Your task to perform on an android device: Open battery settings Image 0: 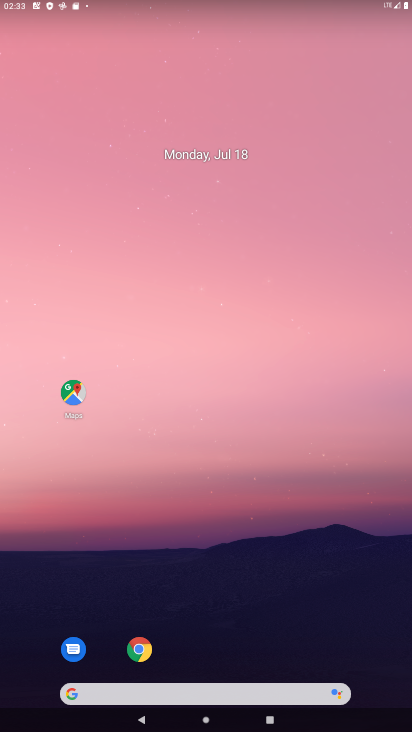
Step 0: drag from (93, 707) to (181, 86)
Your task to perform on an android device: Open battery settings Image 1: 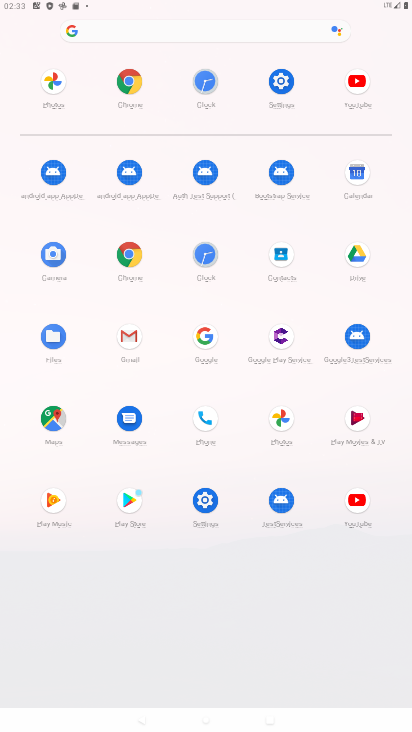
Step 1: click (280, 95)
Your task to perform on an android device: Open battery settings Image 2: 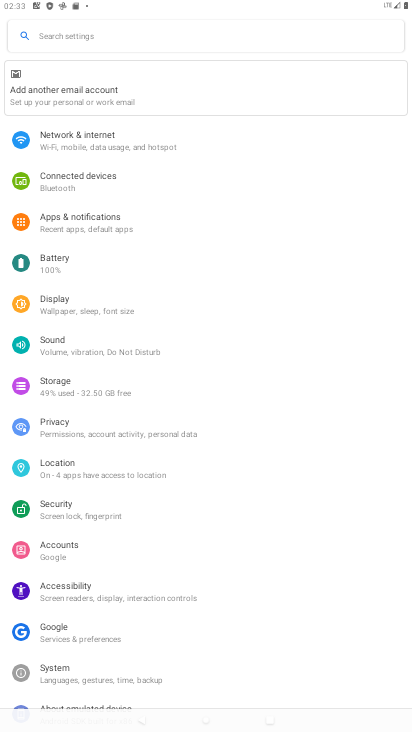
Step 2: click (98, 263)
Your task to perform on an android device: Open battery settings Image 3: 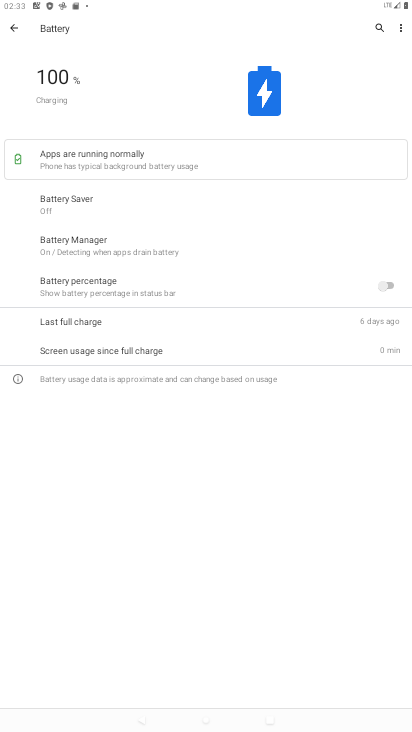
Step 3: task complete